Your task to perform on an android device: turn on the 12-hour format for clock Image 0: 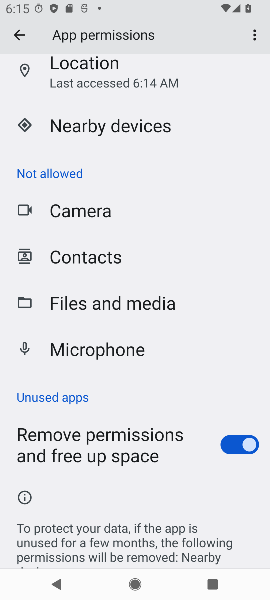
Step 0: press home button
Your task to perform on an android device: turn on the 12-hour format for clock Image 1: 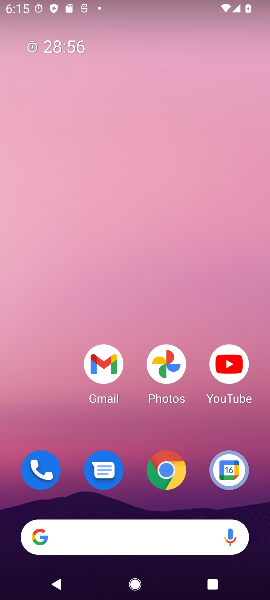
Step 1: drag from (191, 495) to (170, 73)
Your task to perform on an android device: turn on the 12-hour format for clock Image 2: 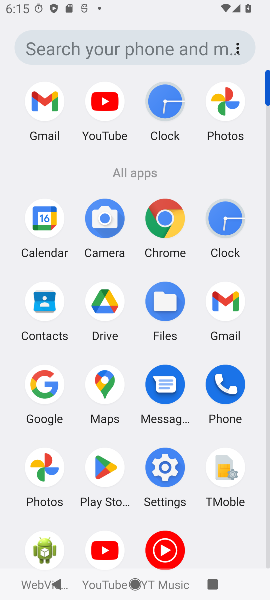
Step 2: click (232, 227)
Your task to perform on an android device: turn on the 12-hour format for clock Image 3: 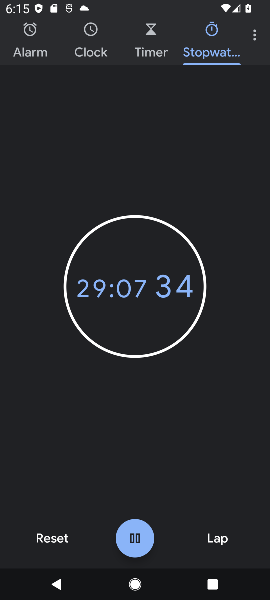
Step 3: click (253, 36)
Your task to perform on an android device: turn on the 12-hour format for clock Image 4: 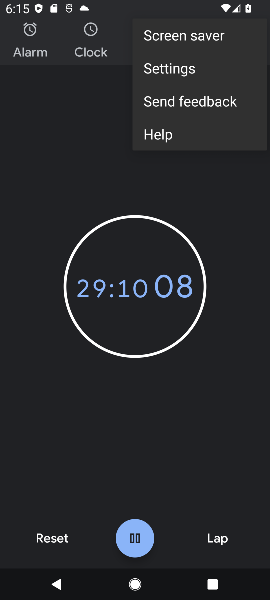
Step 4: click (164, 73)
Your task to perform on an android device: turn on the 12-hour format for clock Image 5: 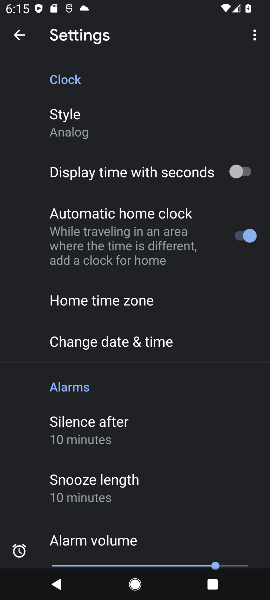
Step 5: click (122, 335)
Your task to perform on an android device: turn on the 12-hour format for clock Image 6: 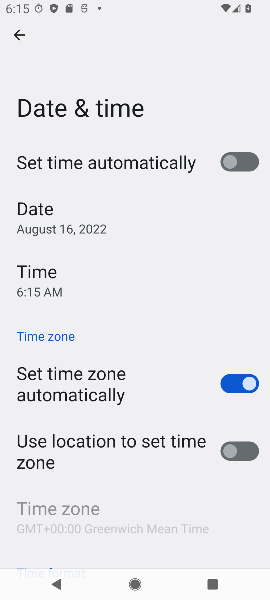
Step 6: task complete